Your task to perform on an android device: allow cookies in the chrome app Image 0: 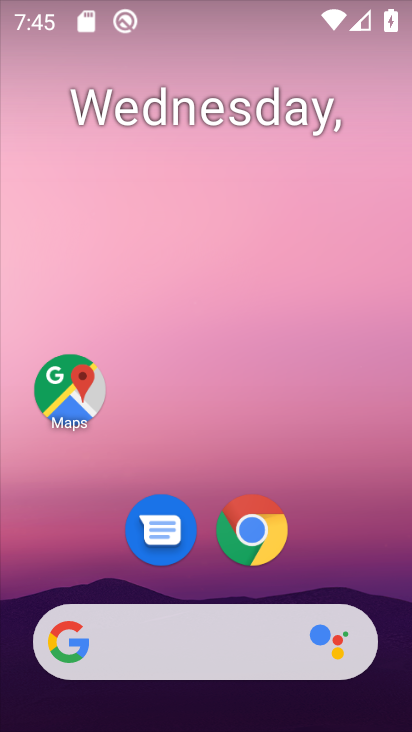
Step 0: drag from (394, 617) to (307, 71)
Your task to perform on an android device: allow cookies in the chrome app Image 1: 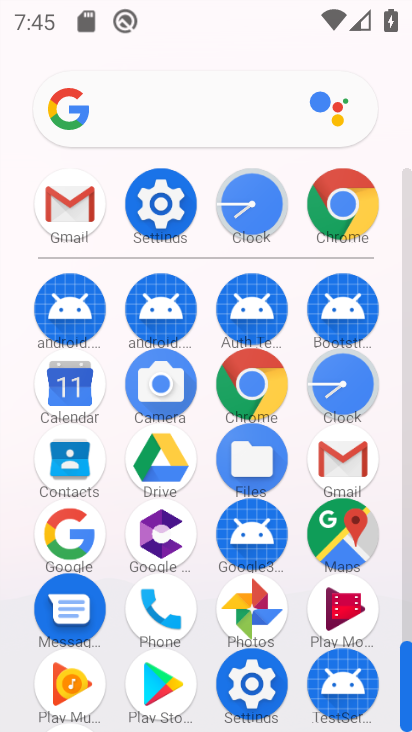
Step 1: click (251, 378)
Your task to perform on an android device: allow cookies in the chrome app Image 2: 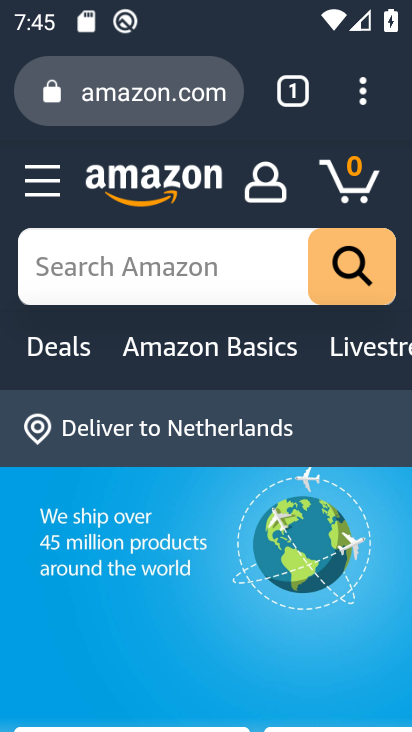
Step 2: press back button
Your task to perform on an android device: allow cookies in the chrome app Image 3: 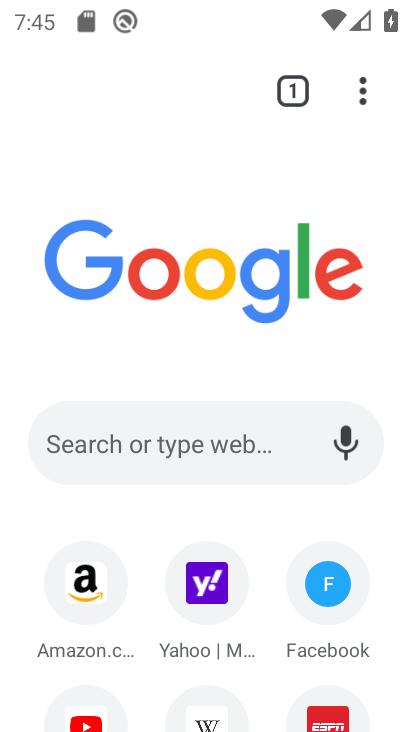
Step 3: click (364, 85)
Your task to perform on an android device: allow cookies in the chrome app Image 4: 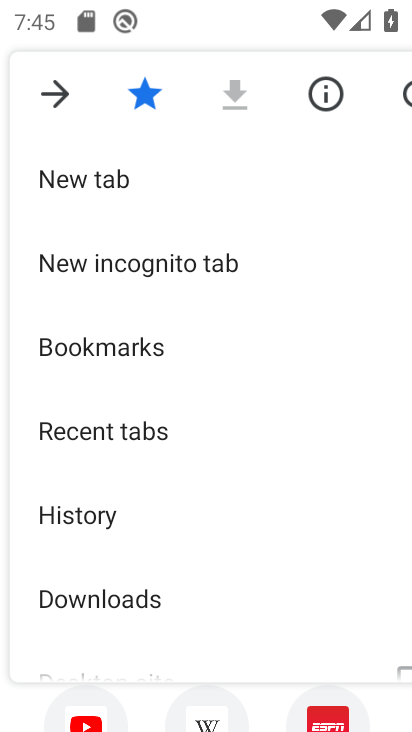
Step 4: click (132, 534)
Your task to perform on an android device: allow cookies in the chrome app Image 5: 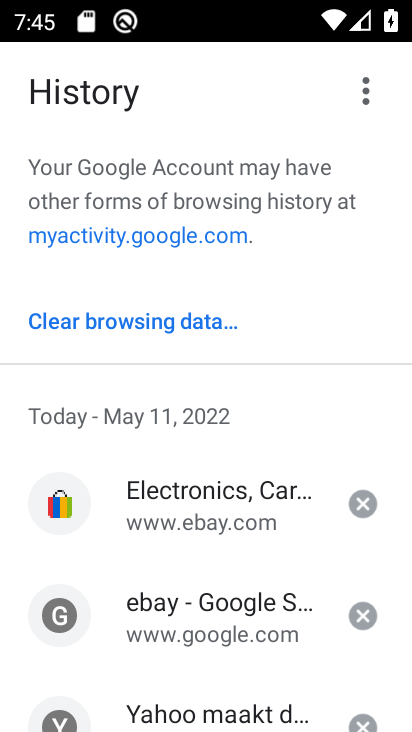
Step 5: click (110, 343)
Your task to perform on an android device: allow cookies in the chrome app Image 6: 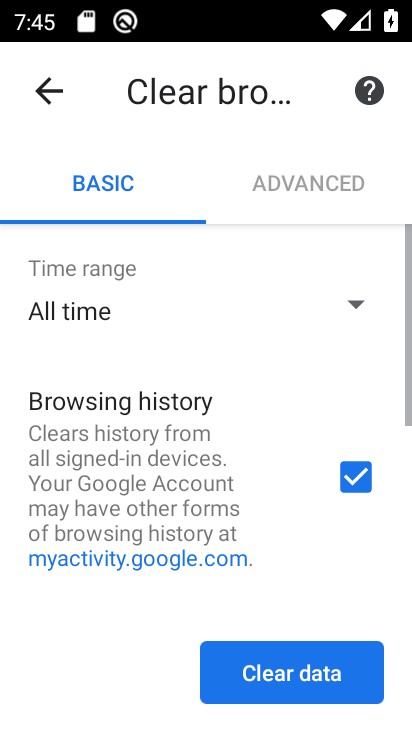
Step 6: task complete